Your task to perform on an android device: turn on showing notifications on the lock screen Image 0: 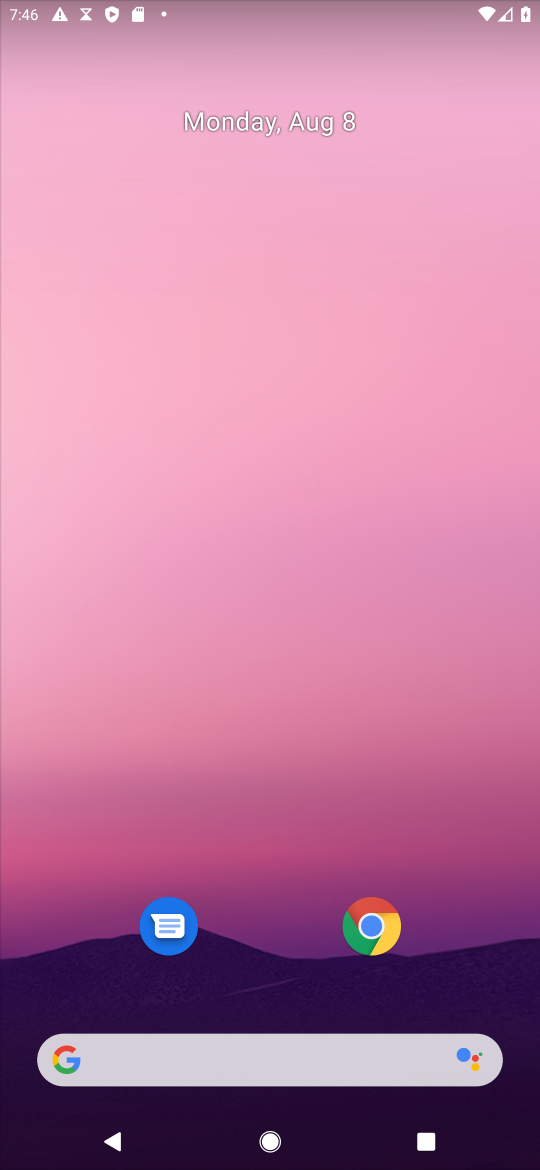
Step 0: drag from (253, 922) to (242, 167)
Your task to perform on an android device: turn on showing notifications on the lock screen Image 1: 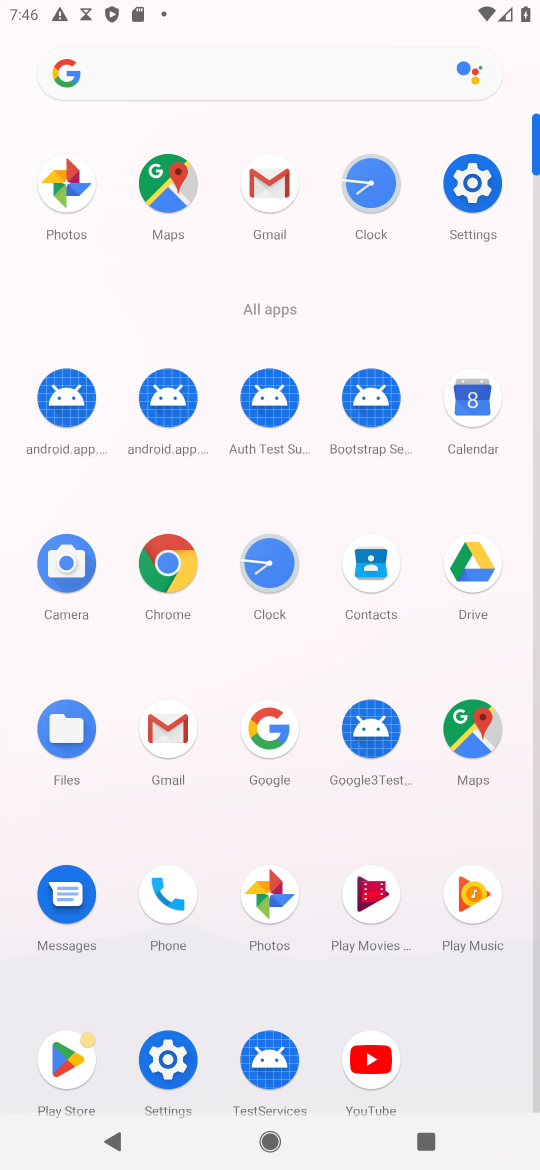
Step 1: click (162, 1053)
Your task to perform on an android device: turn on showing notifications on the lock screen Image 2: 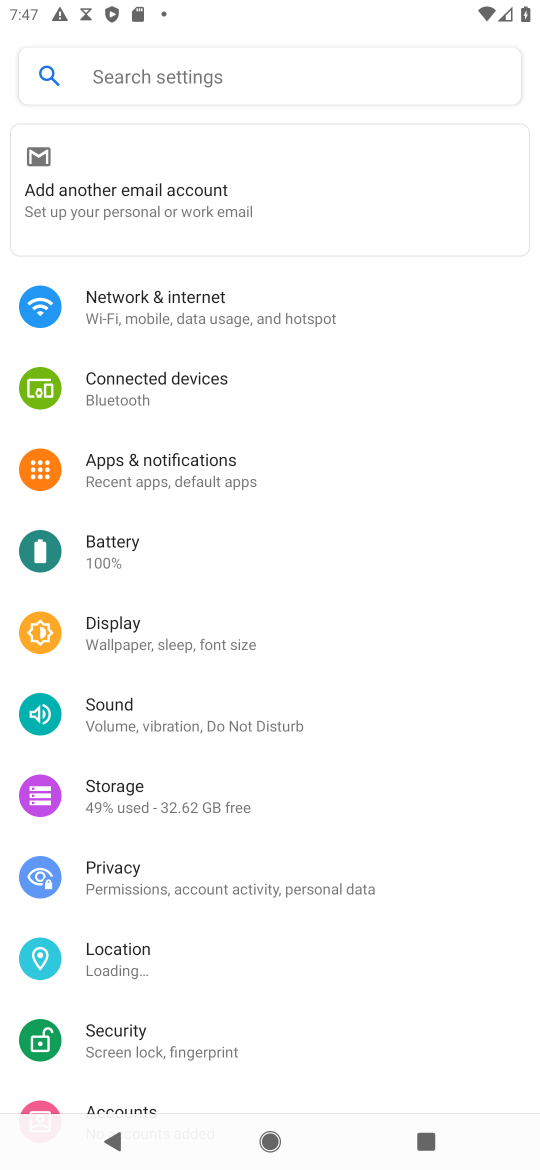
Step 2: click (195, 473)
Your task to perform on an android device: turn on showing notifications on the lock screen Image 3: 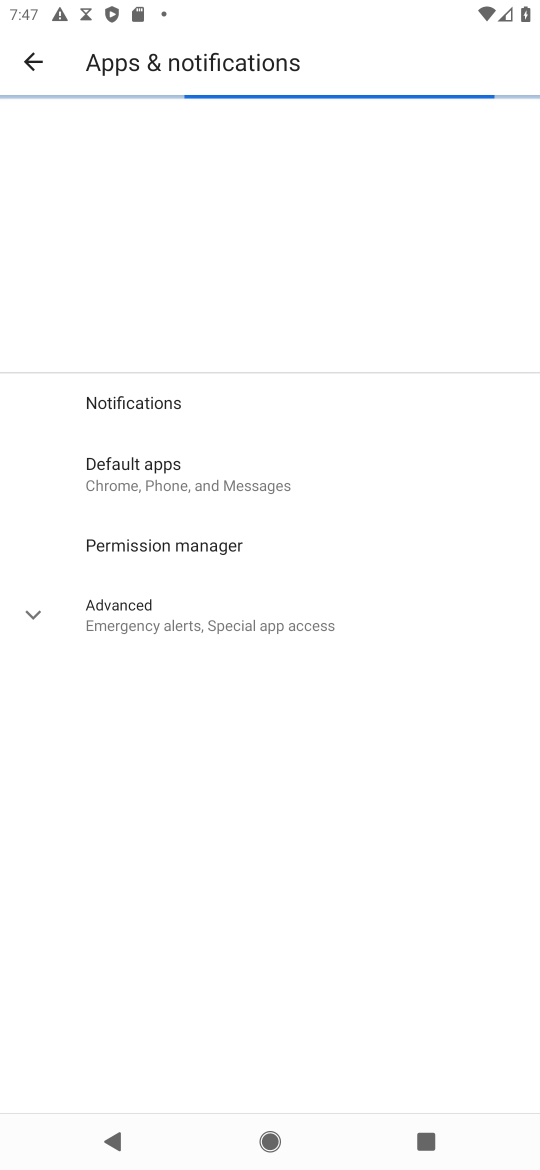
Step 3: click (154, 403)
Your task to perform on an android device: turn on showing notifications on the lock screen Image 4: 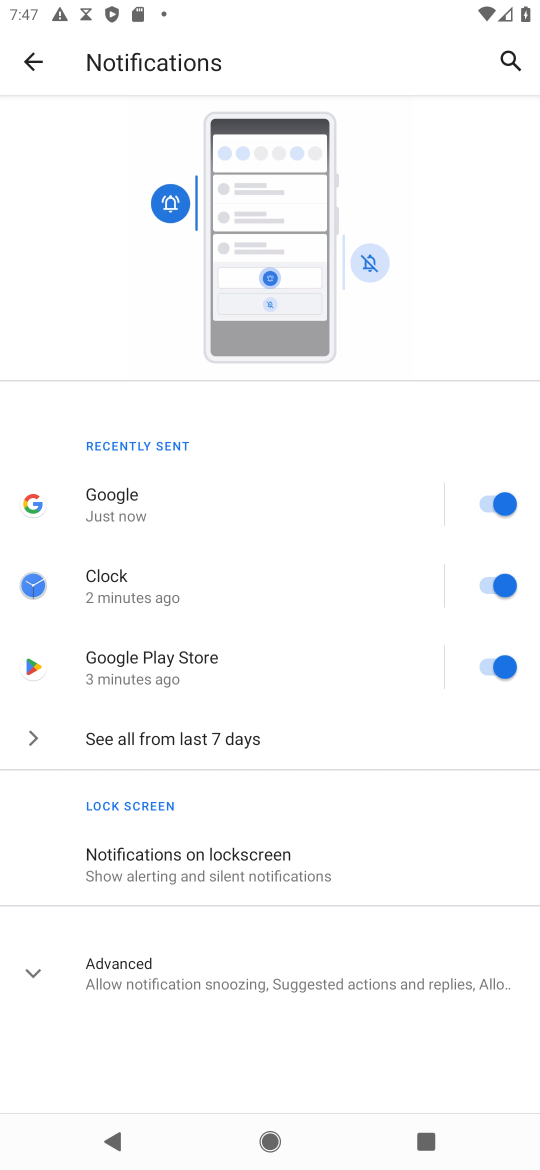
Step 4: click (245, 859)
Your task to perform on an android device: turn on showing notifications on the lock screen Image 5: 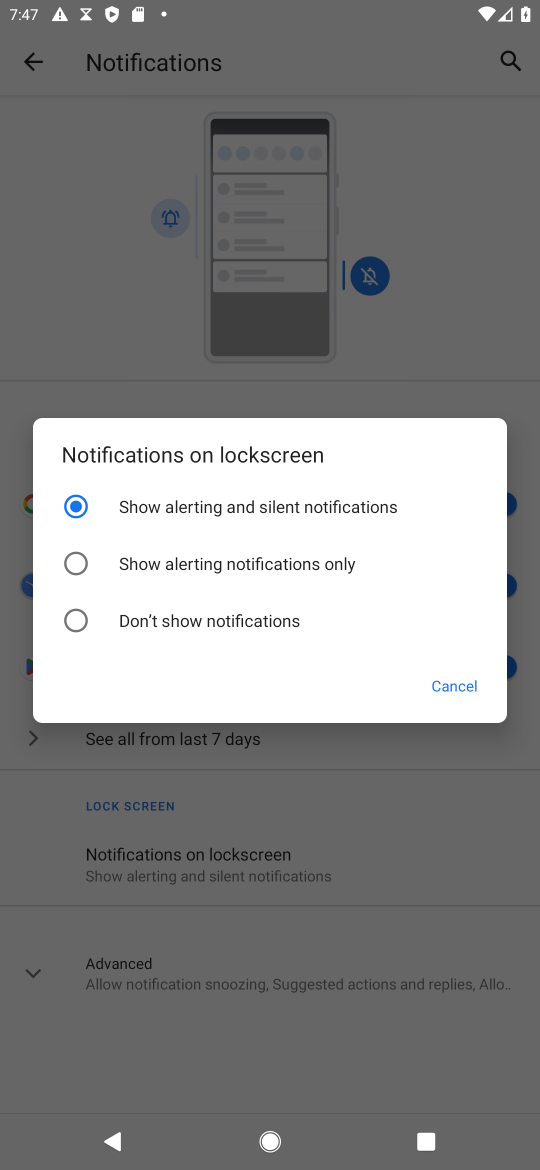
Step 5: task complete